Your task to perform on an android device: turn off location Image 0: 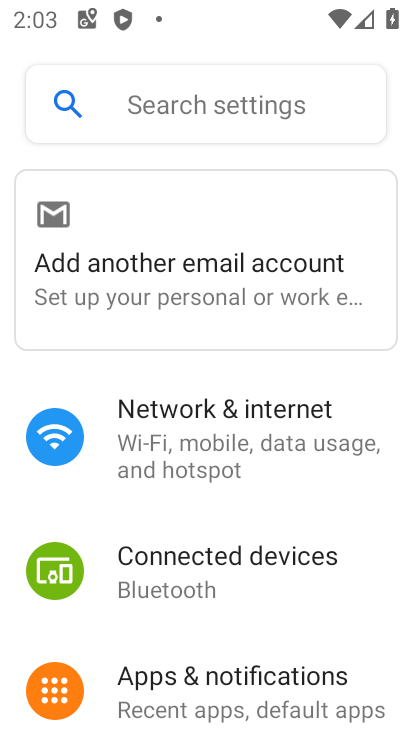
Step 0: drag from (104, 646) to (233, 145)
Your task to perform on an android device: turn off location Image 1: 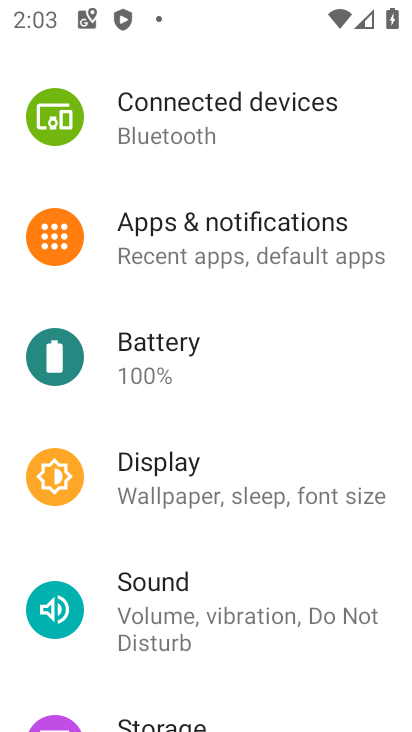
Step 1: drag from (185, 619) to (354, 129)
Your task to perform on an android device: turn off location Image 2: 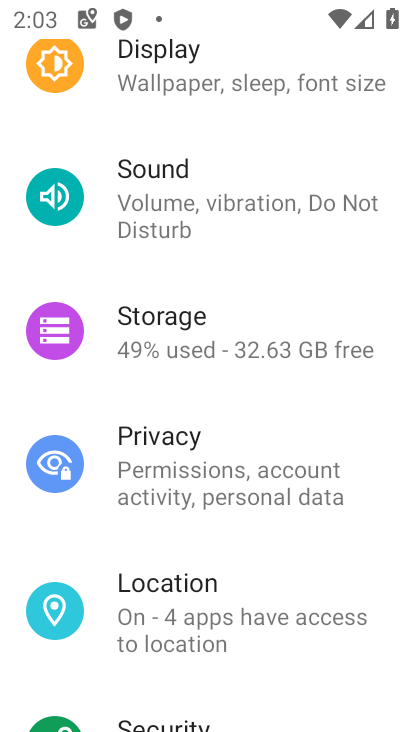
Step 2: drag from (187, 580) to (296, 219)
Your task to perform on an android device: turn off location Image 3: 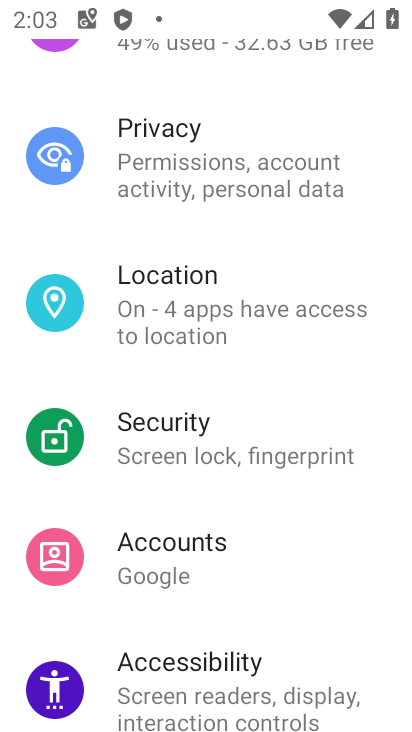
Step 3: drag from (138, 541) to (228, 228)
Your task to perform on an android device: turn off location Image 4: 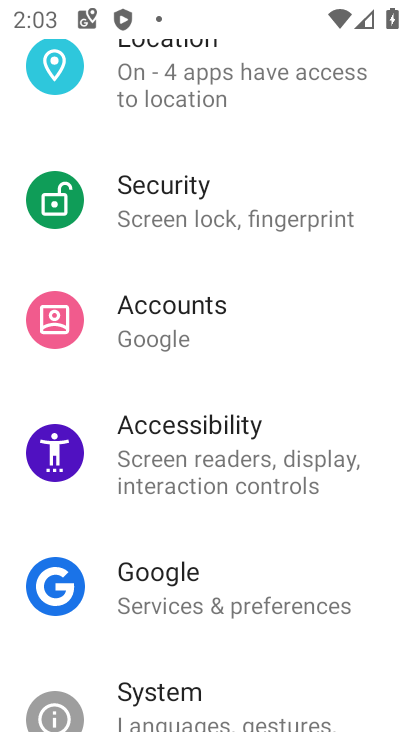
Step 4: drag from (223, 232) to (225, 573)
Your task to perform on an android device: turn off location Image 5: 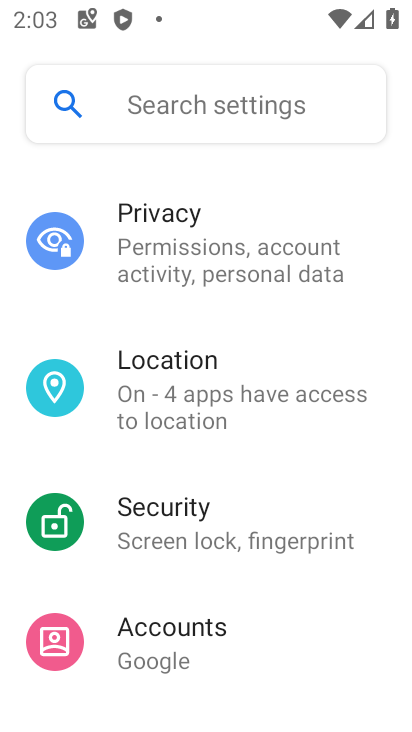
Step 5: click (215, 401)
Your task to perform on an android device: turn off location Image 6: 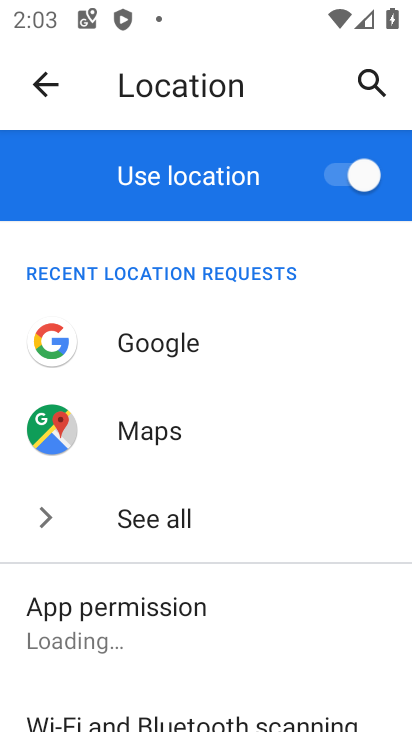
Step 6: click (329, 171)
Your task to perform on an android device: turn off location Image 7: 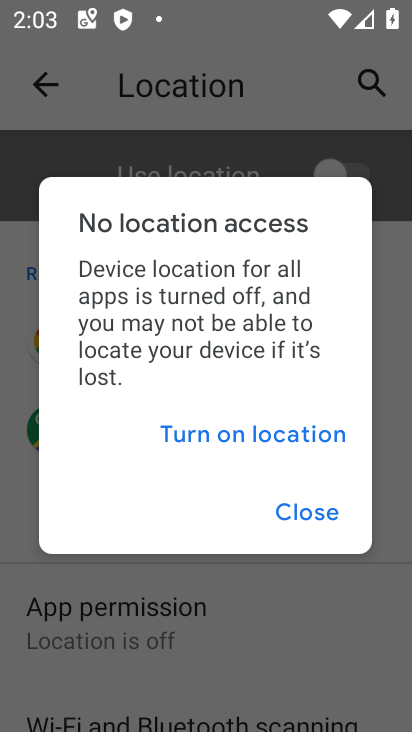
Step 7: task complete